Your task to perform on an android device: turn off translation in the chrome app Image 0: 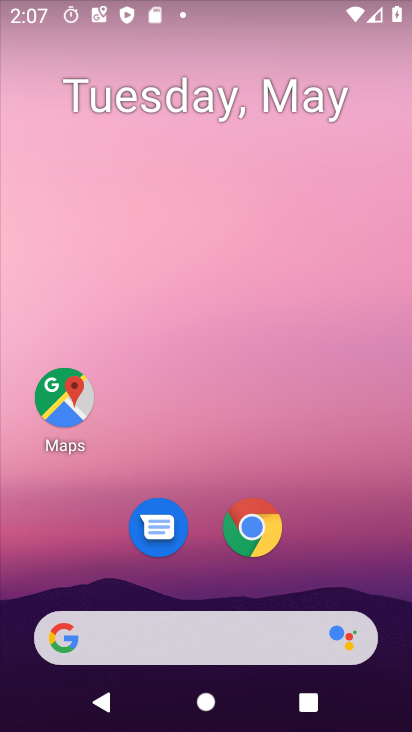
Step 0: drag from (288, 653) to (306, 144)
Your task to perform on an android device: turn off translation in the chrome app Image 1: 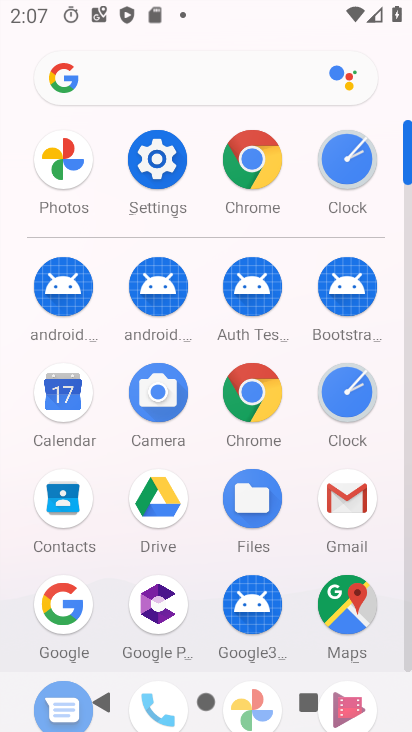
Step 1: click (247, 160)
Your task to perform on an android device: turn off translation in the chrome app Image 2: 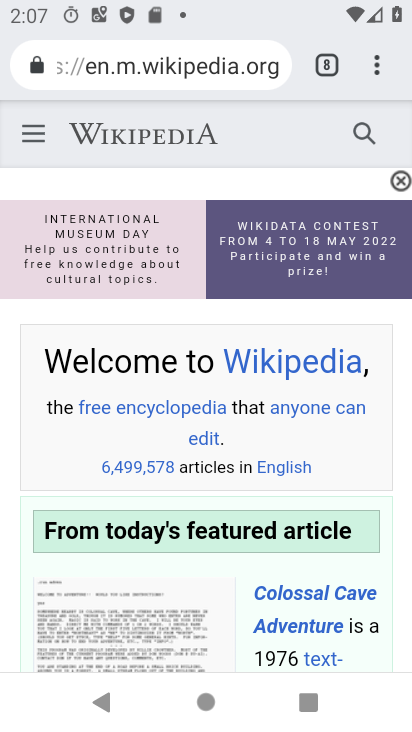
Step 2: click (365, 69)
Your task to perform on an android device: turn off translation in the chrome app Image 3: 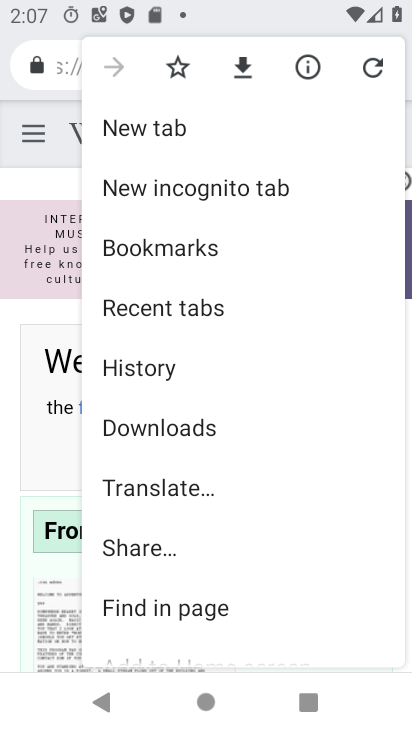
Step 3: drag from (268, 383) to (264, 263)
Your task to perform on an android device: turn off translation in the chrome app Image 4: 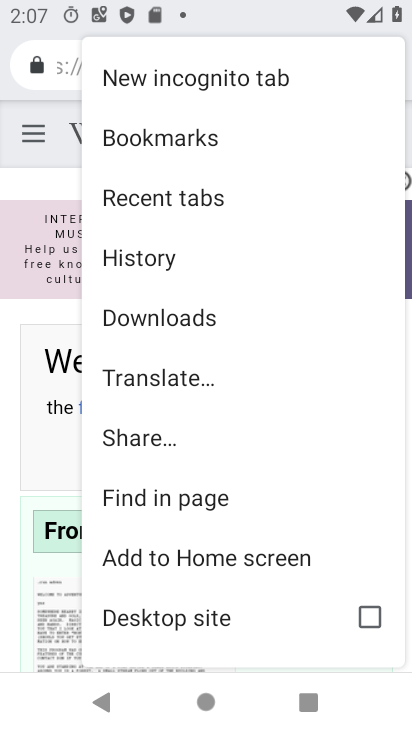
Step 4: drag from (271, 457) to (279, 299)
Your task to perform on an android device: turn off translation in the chrome app Image 5: 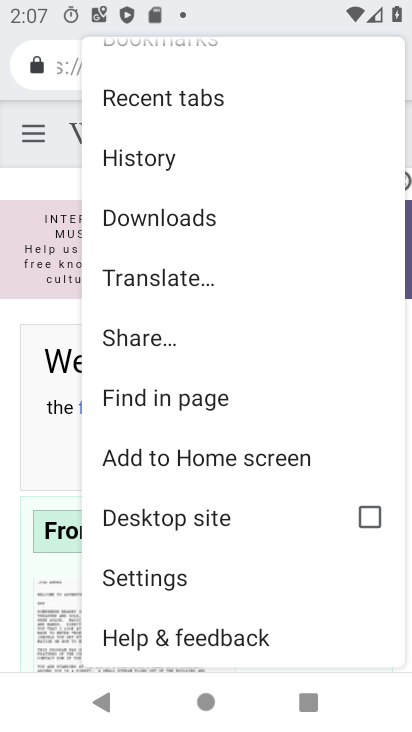
Step 5: click (179, 573)
Your task to perform on an android device: turn off translation in the chrome app Image 6: 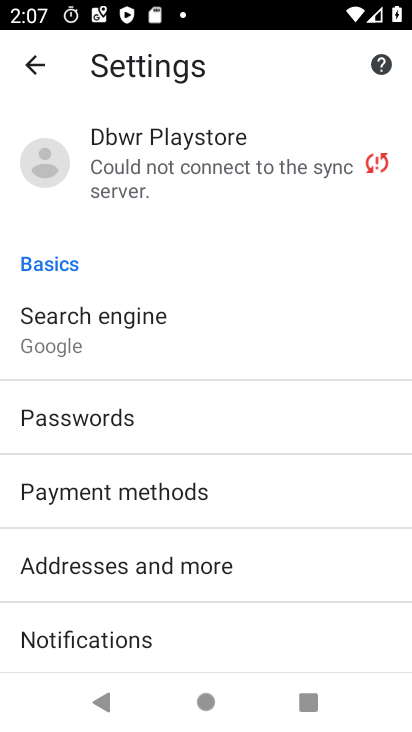
Step 6: drag from (179, 570) to (197, 335)
Your task to perform on an android device: turn off translation in the chrome app Image 7: 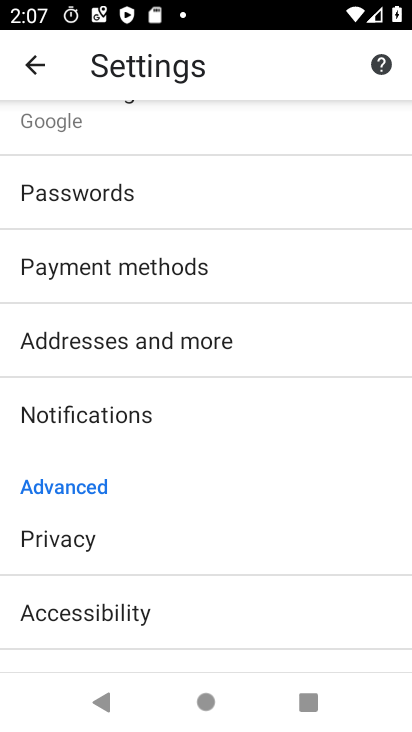
Step 7: drag from (185, 508) to (186, 427)
Your task to perform on an android device: turn off translation in the chrome app Image 8: 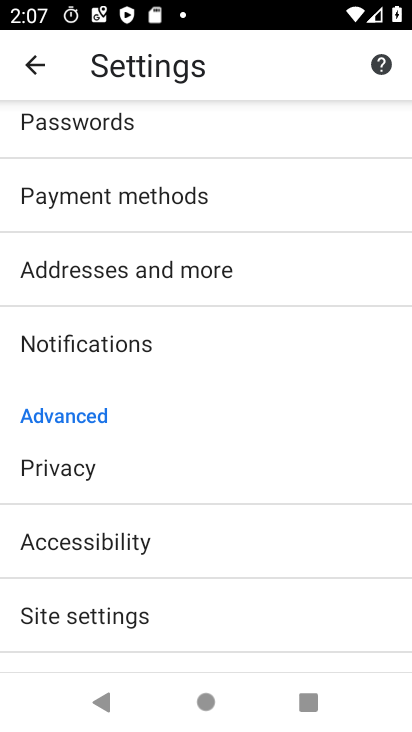
Step 8: drag from (137, 584) to (145, 472)
Your task to perform on an android device: turn off translation in the chrome app Image 9: 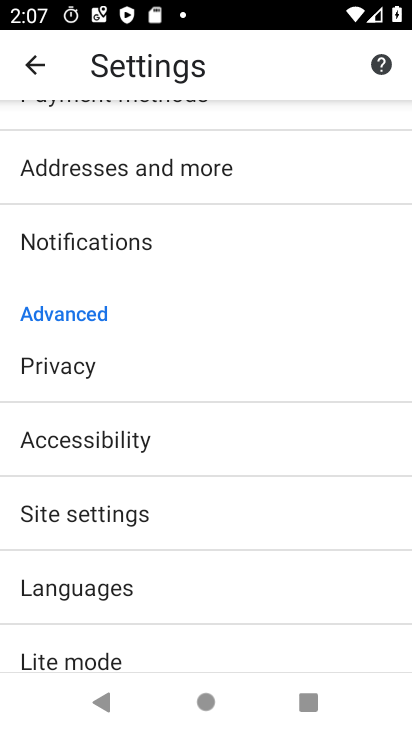
Step 9: click (117, 592)
Your task to perform on an android device: turn off translation in the chrome app Image 10: 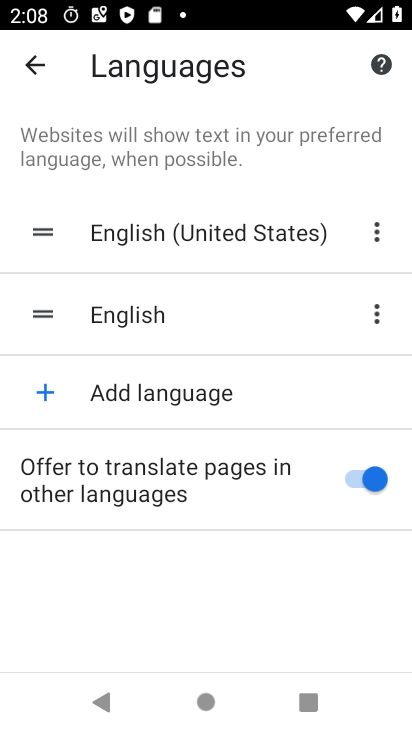
Step 10: click (289, 484)
Your task to perform on an android device: turn off translation in the chrome app Image 11: 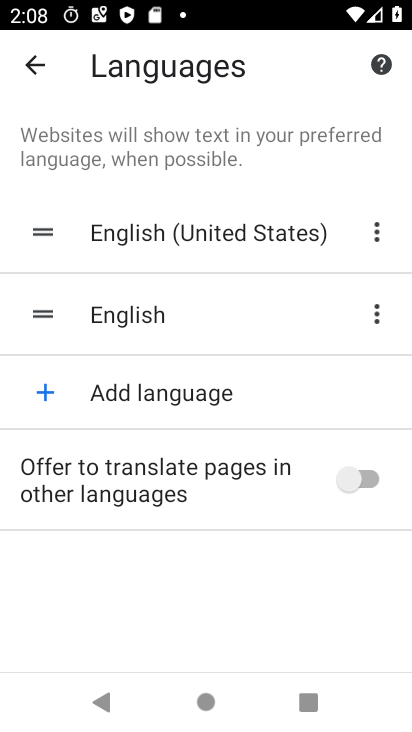
Step 11: task complete